Your task to perform on an android device: Open notification settings Image 0: 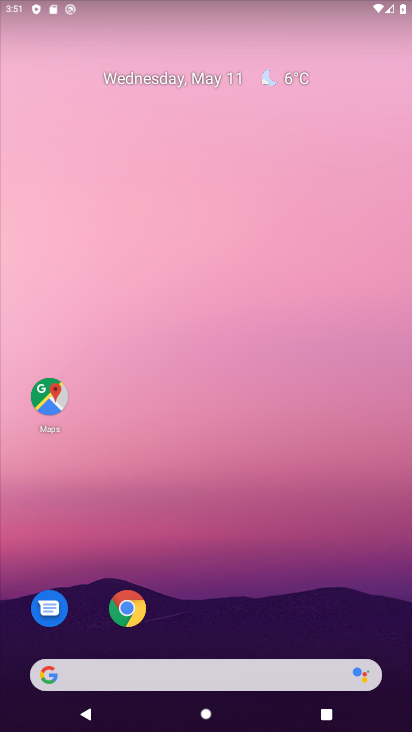
Step 0: drag from (229, 728) to (229, 191)
Your task to perform on an android device: Open notification settings Image 1: 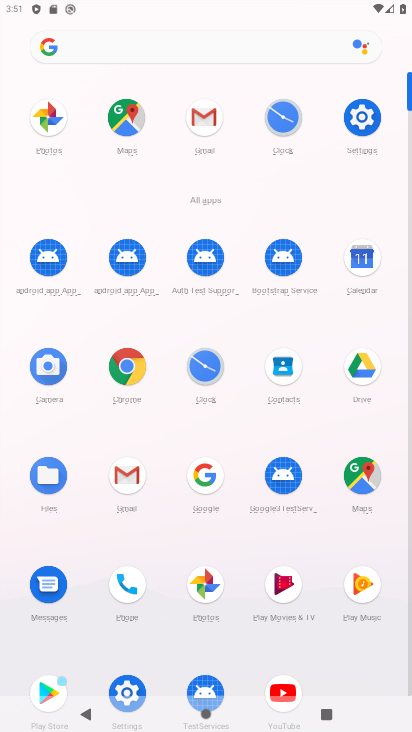
Step 1: click (362, 114)
Your task to perform on an android device: Open notification settings Image 2: 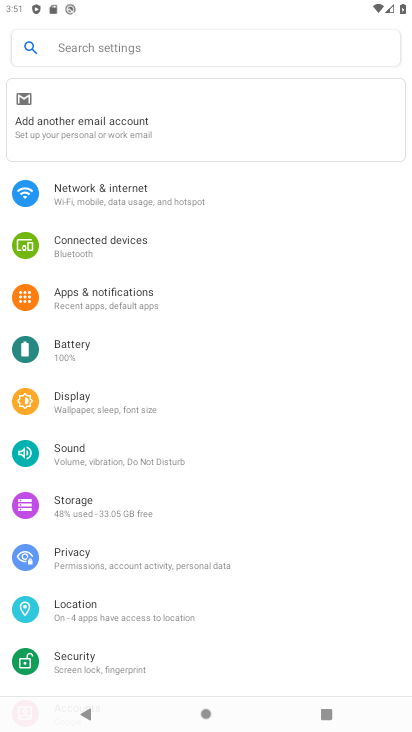
Step 2: click (105, 295)
Your task to perform on an android device: Open notification settings Image 3: 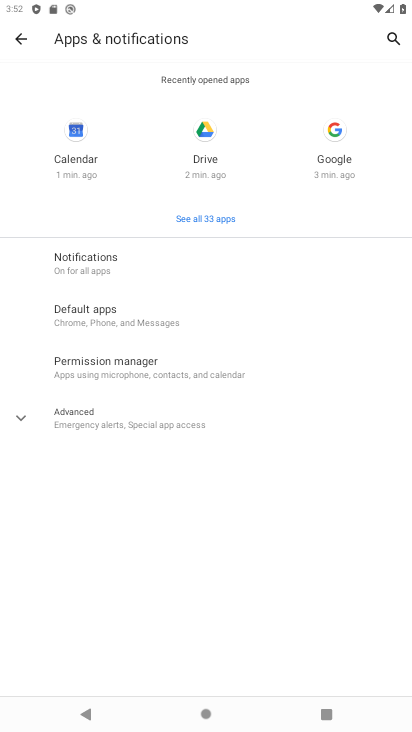
Step 3: click (80, 262)
Your task to perform on an android device: Open notification settings Image 4: 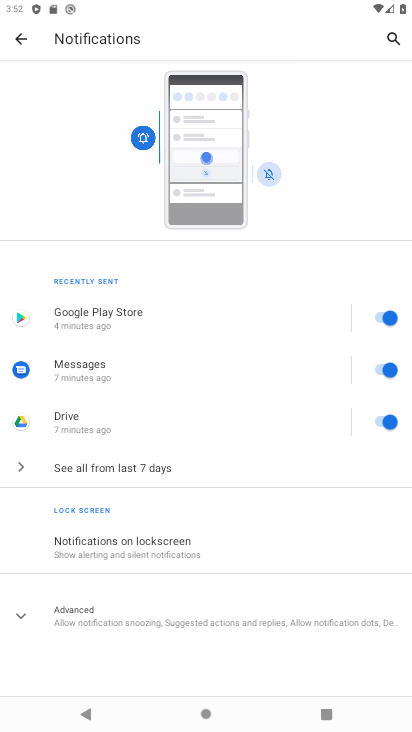
Step 4: task complete